Your task to perform on an android device: Go to battery settings Image 0: 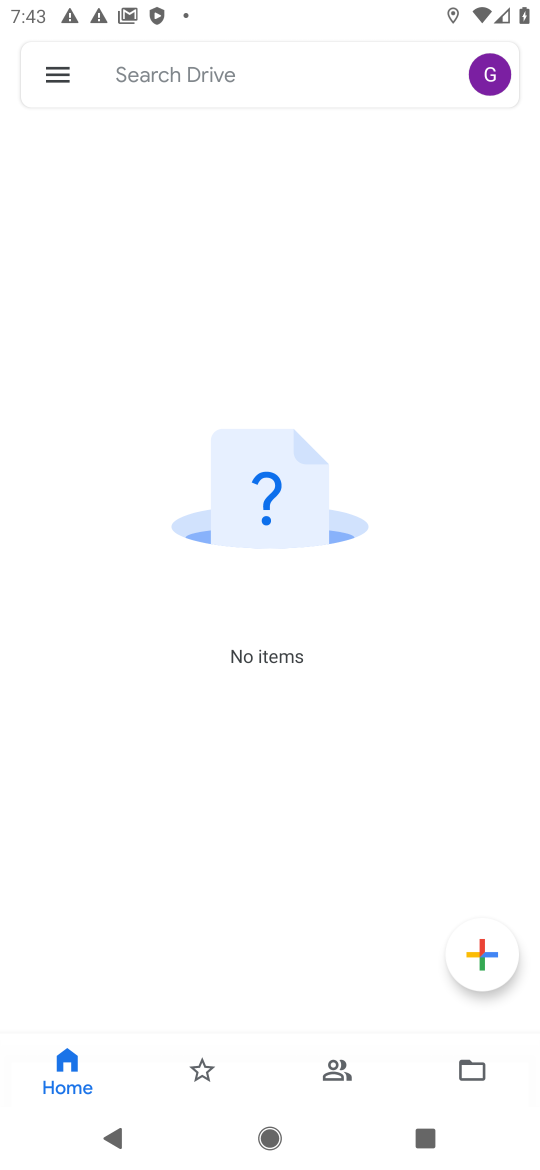
Step 0: press home button
Your task to perform on an android device: Go to battery settings Image 1: 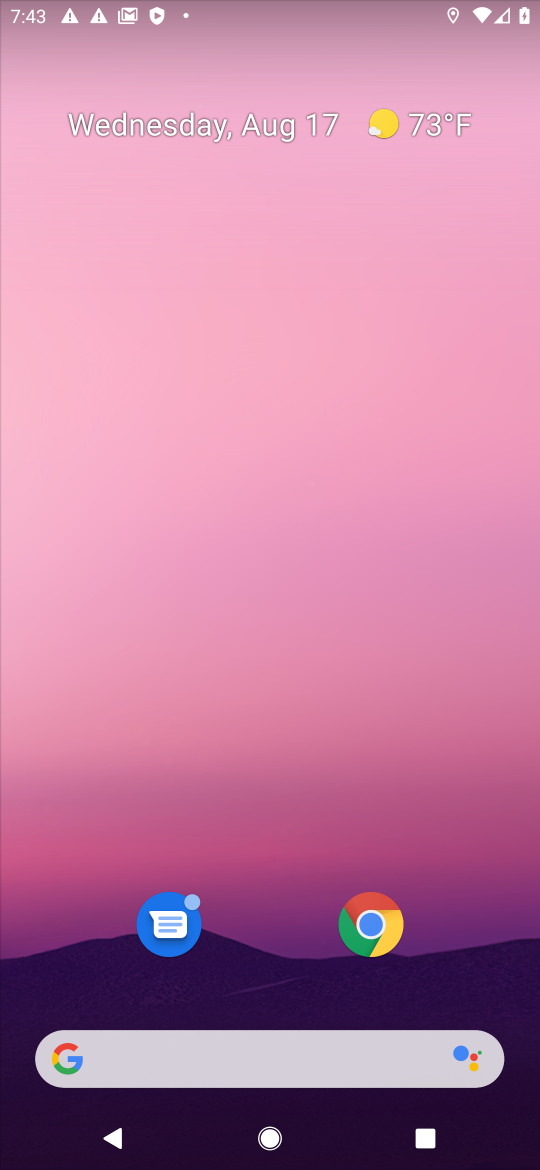
Step 1: drag from (288, 979) to (501, 87)
Your task to perform on an android device: Go to battery settings Image 2: 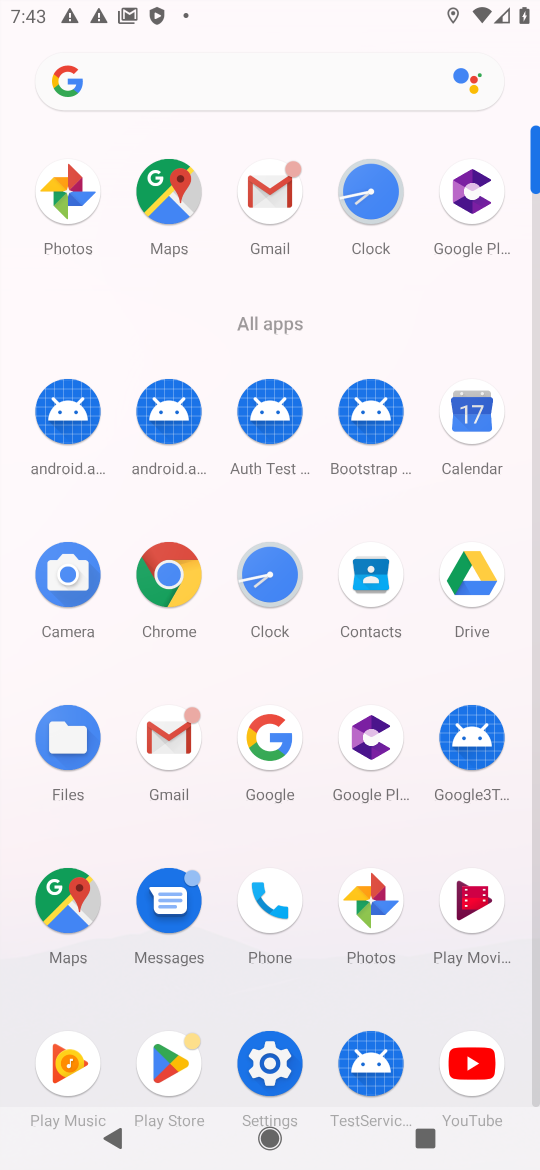
Step 2: click (267, 1052)
Your task to perform on an android device: Go to battery settings Image 3: 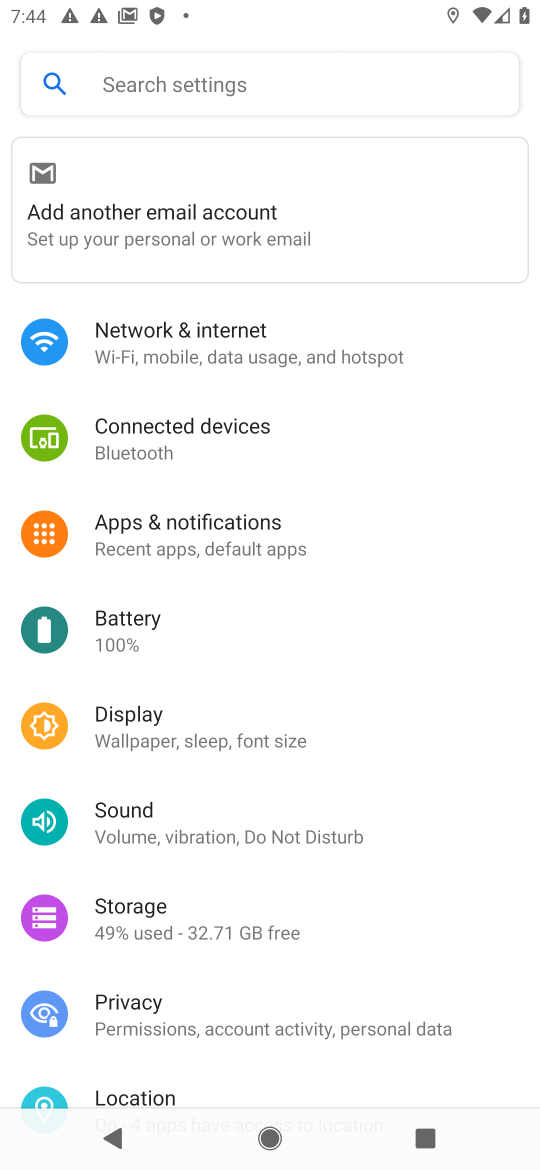
Step 3: click (108, 640)
Your task to perform on an android device: Go to battery settings Image 4: 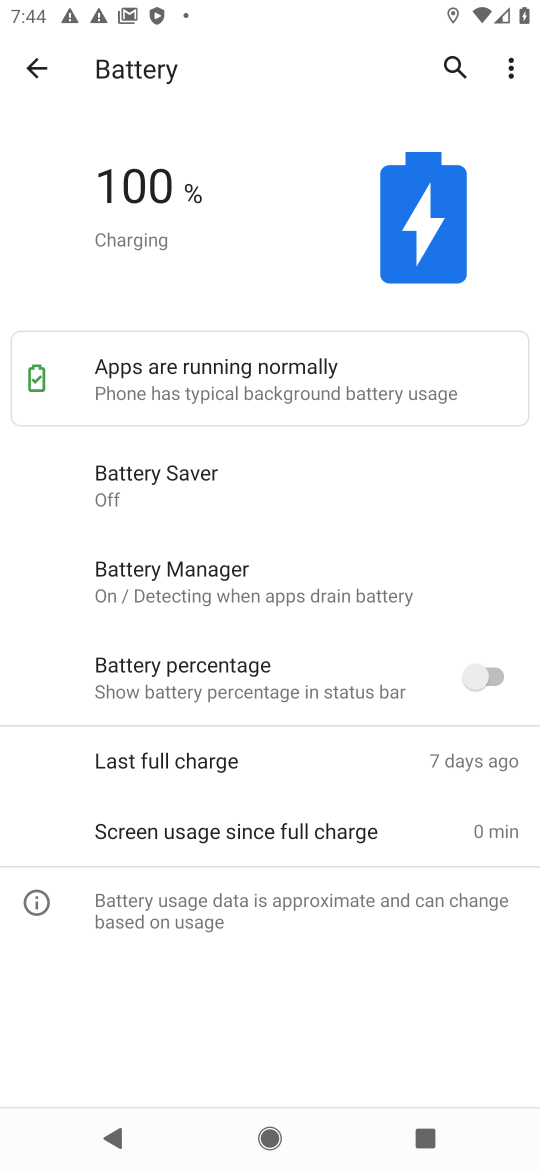
Step 4: task complete